Your task to perform on an android device: What's the weather going to be this weekend? Image 0: 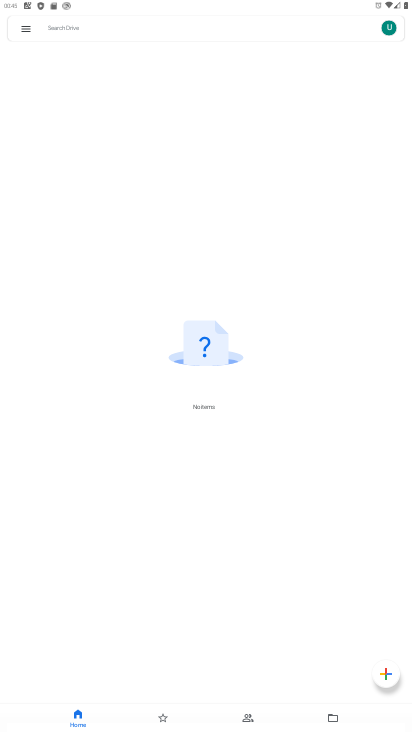
Step 0: press home button
Your task to perform on an android device: What's the weather going to be this weekend? Image 1: 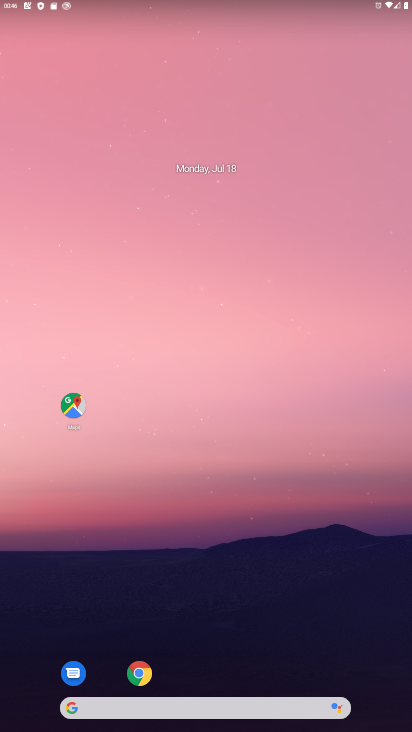
Step 1: drag from (240, 663) to (237, 128)
Your task to perform on an android device: What's the weather going to be this weekend? Image 2: 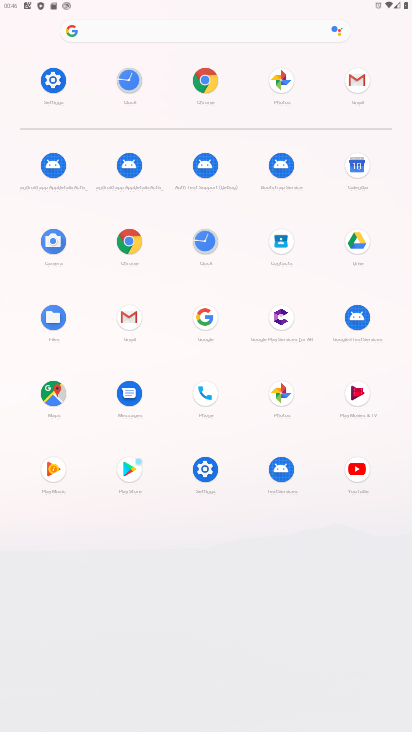
Step 2: click (185, 35)
Your task to perform on an android device: What's the weather going to be this weekend? Image 3: 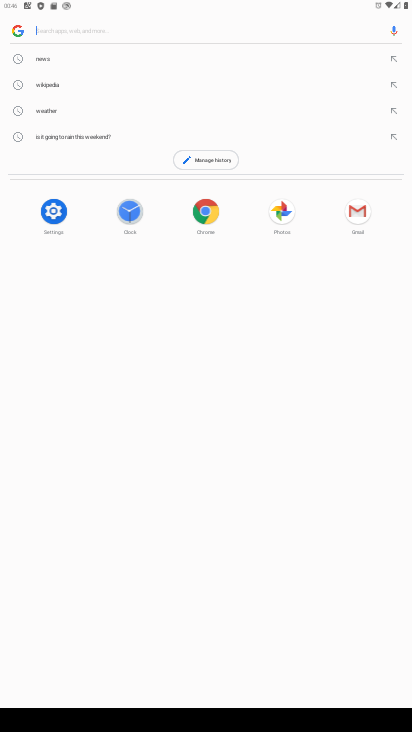
Step 3: type "weather"
Your task to perform on an android device: What's the weather going to be this weekend? Image 4: 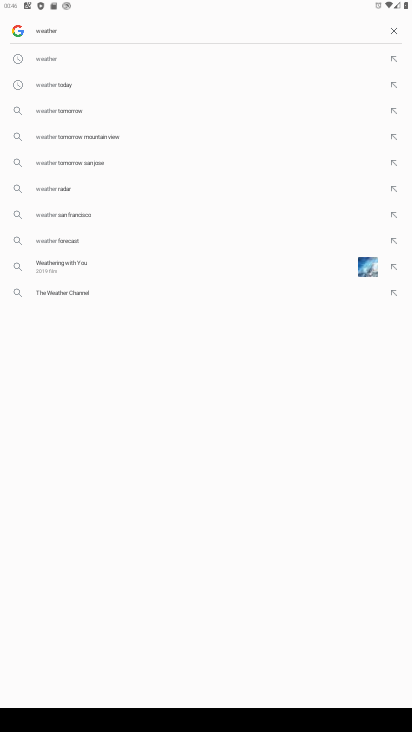
Step 4: click (108, 59)
Your task to perform on an android device: What's the weather going to be this weekend? Image 5: 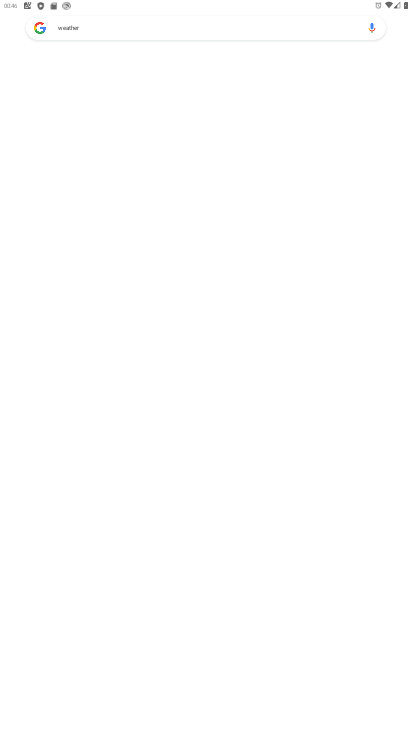
Step 5: task complete